Your task to perform on an android device: Open Wikipedia Image 0: 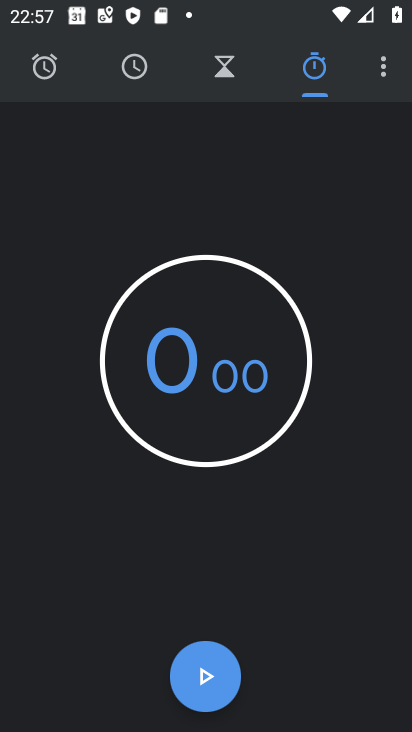
Step 0: press home button
Your task to perform on an android device: Open Wikipedia Image 1: 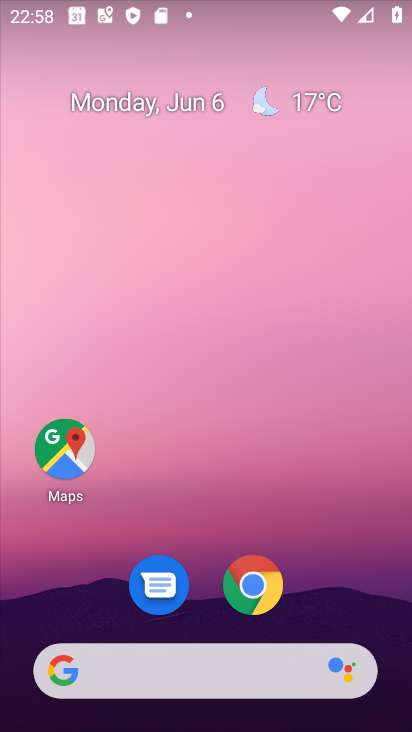
Step 1: click (260, 578)
Your task to perform on an android device: Open Wikipedia Image 2: 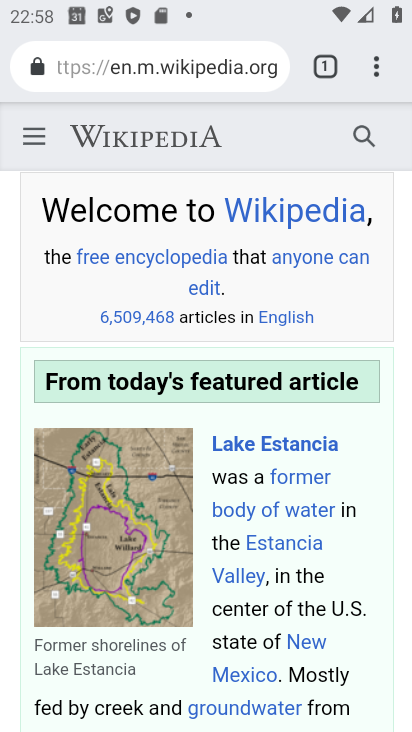
Step 2: task complete